Your task to perform on an android device: delete location history Image 0: 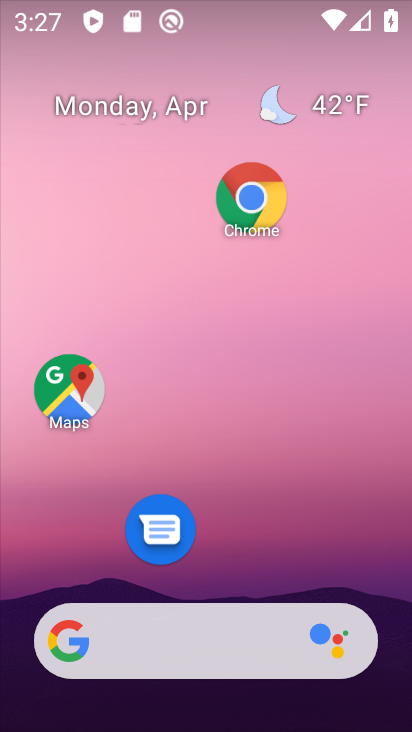
Step 0: click (75, 392)
Your task to perform on an android device: delete location history Image 1: 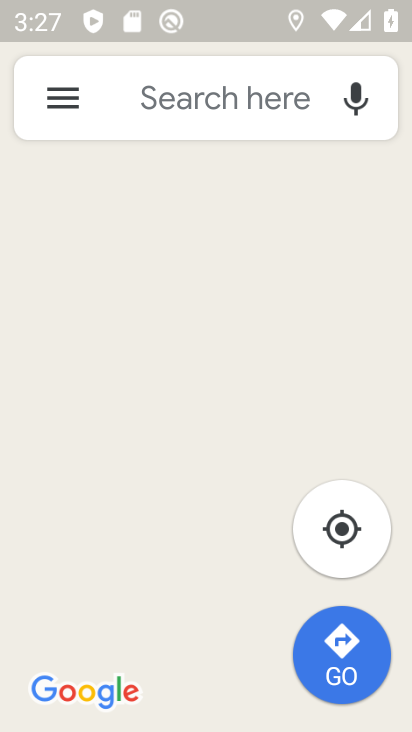
Step 1: click (57, 112)
Your task to perform on an android device: delete location history Image 2: 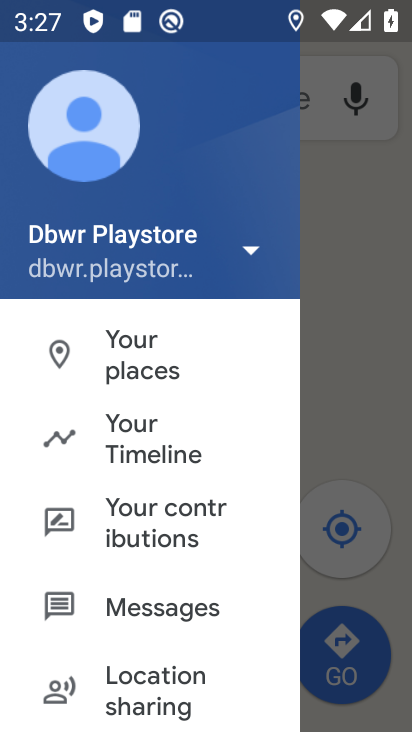
Step 2: click (160, 453)
Your task to perform on an android device: delete location history Image 3: 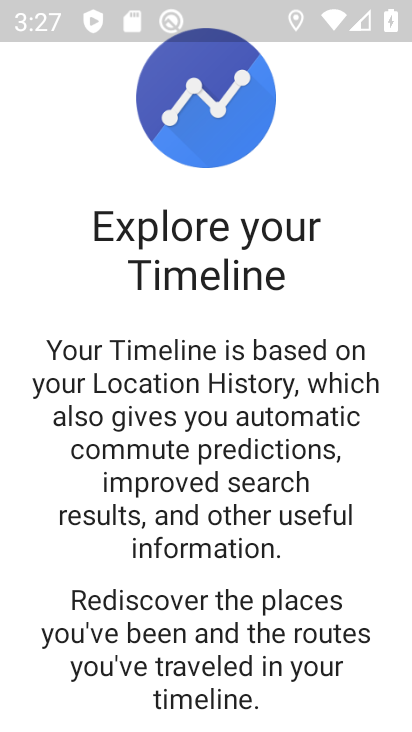
Step 3: click (328, 729)
Your task to perform on an android device: delete location history Image 4: 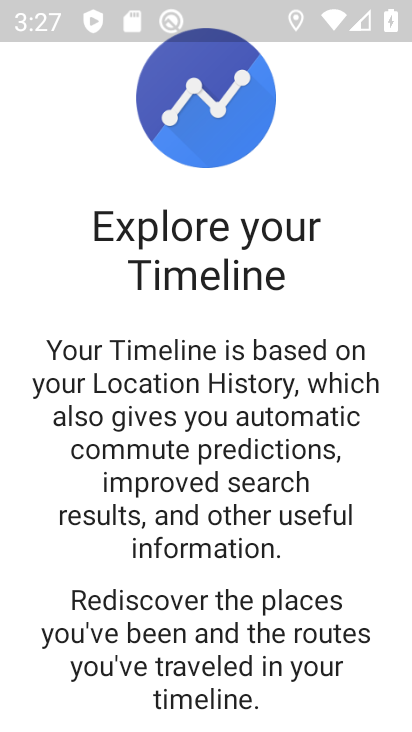
Step 4: click (332, 713)
Your task to perform on an android device: delete location history Image 5: 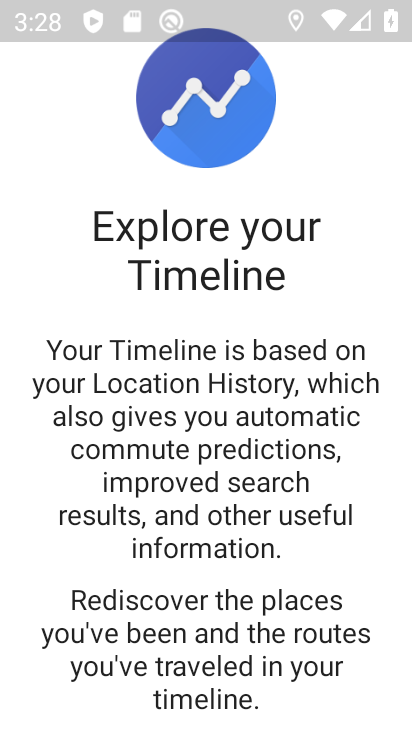
Step 5: drag from (282, 692) to (319, 708)
Your task to perform on an android device: delete location history Image 6: 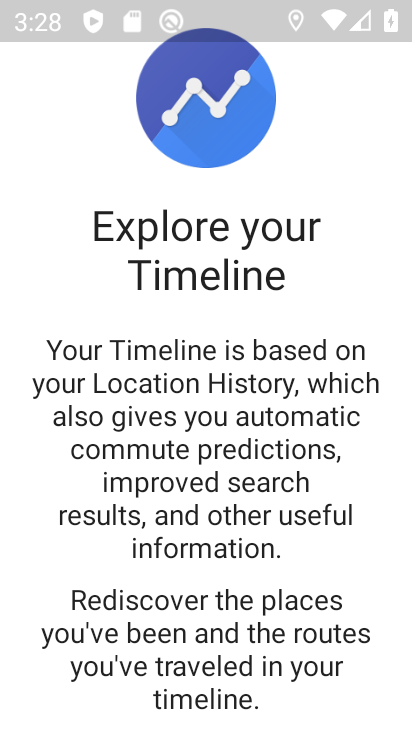
Step 6: drag from (263, 455) to (247, 222)
Your task to perform on an android device: delete location history Image 7: 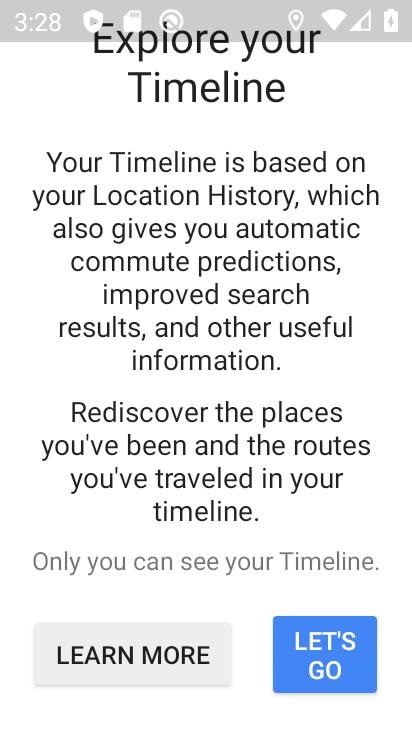
Step 7: click (330, 652)
Your task to perform on an android device: delete location history Image 8: 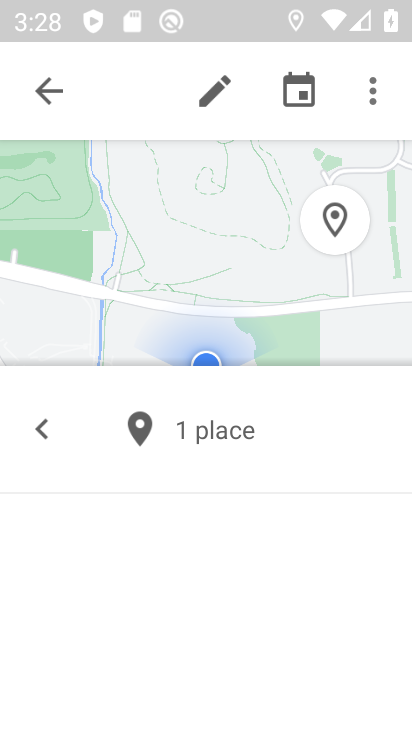
Step 8: click (367, 103)
Your task to perform on an android device: delete location history Image 9: 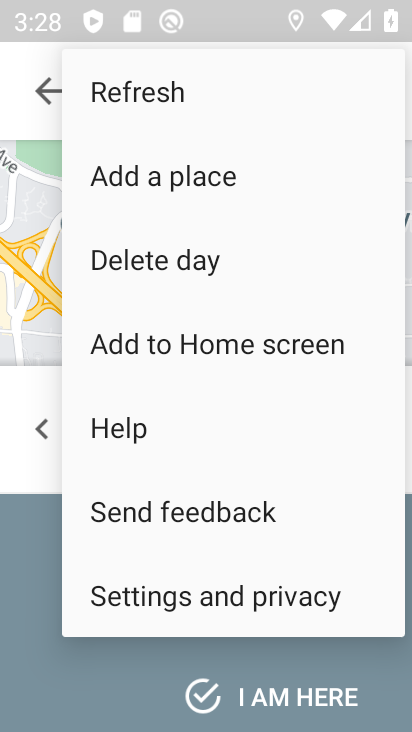
Step 9: click (242, 581)
Your task to perform on an android device: delete location history Image 10: 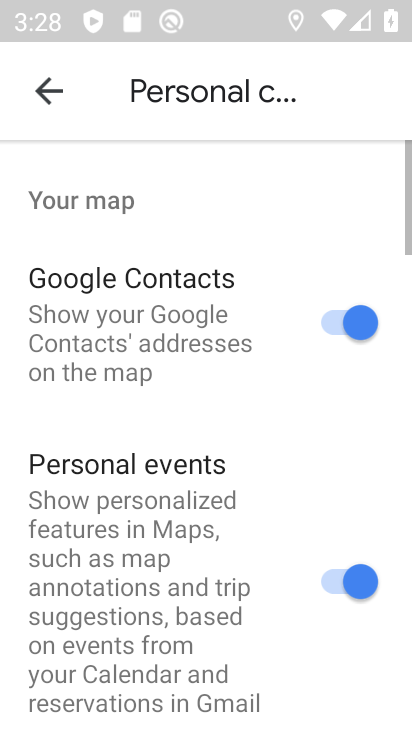
Step 10: drag from (196, 453) to (163, 153)
Your task to perform on an android device: delete location history Image 11: 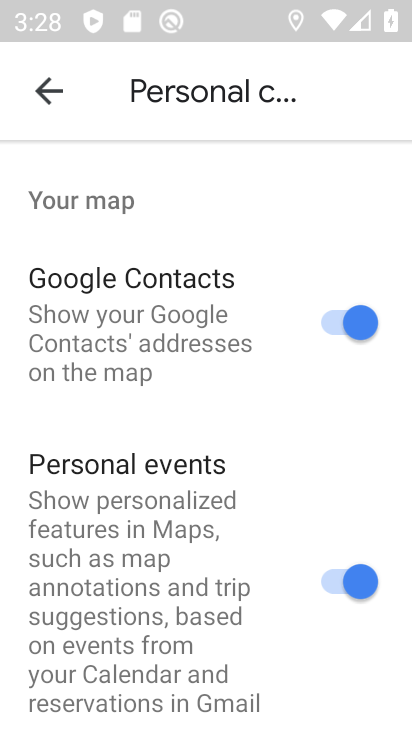
Step 11: drag from (203, 668) to (217, 156)
Your task to perform on an android device: delete location history Image 12: 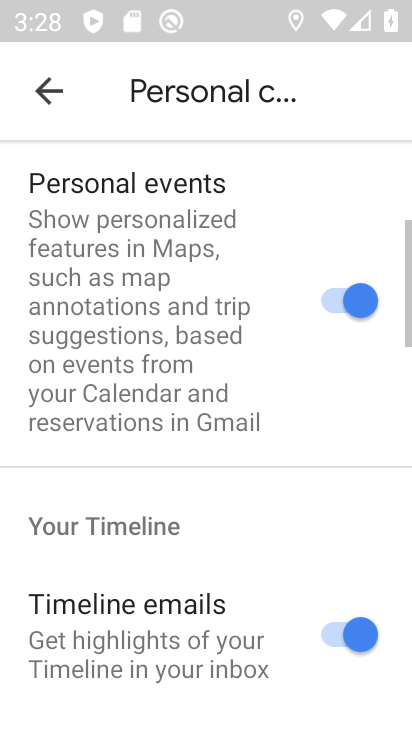
Step 12: drag from (204, 644) to (192, 197)
Your task to perform on an android device: delete location history Image 13: 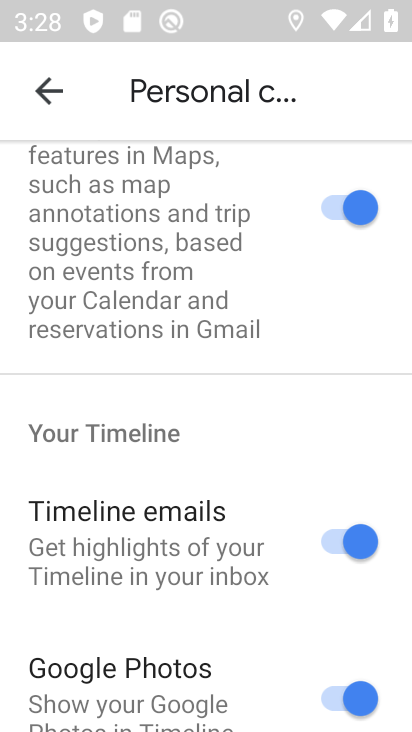
Step 13: drag from (175, 677) to (164, 235)
Your task to perform on an android device: delete location history Image 14: 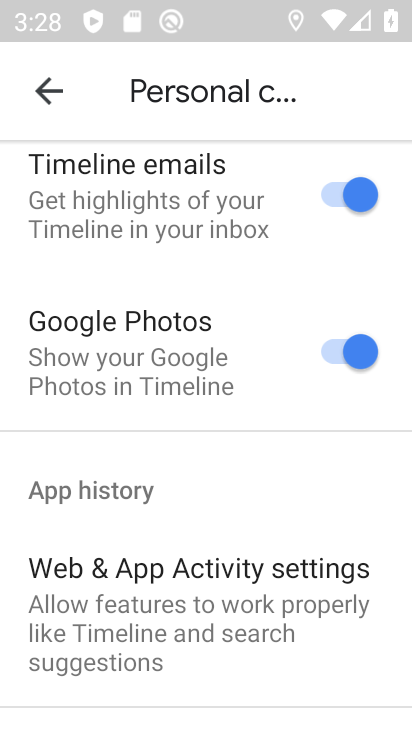
Step 14: drag from (183, 661) to (193, 234)
Your task to perform on an android device: delete location history Image 15: 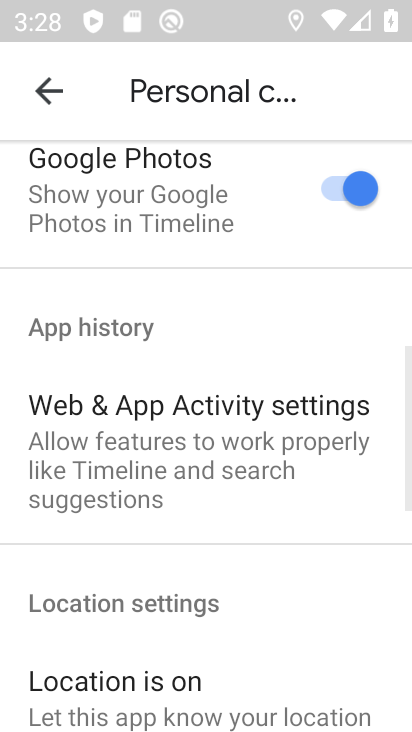
Step 15: drag from (216, 651) to (221, 282)
Your task to perform on an android device: delete location history Image 16: 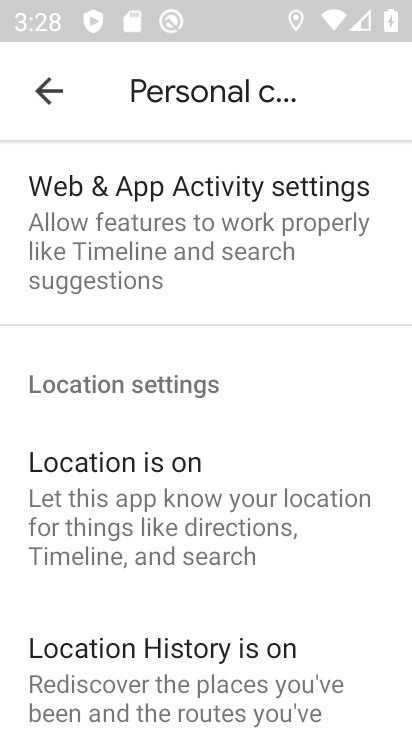
Step 16: drag from (219, 662) to (190, 246)
Your task to perform on an android device: delete location history Image 17: 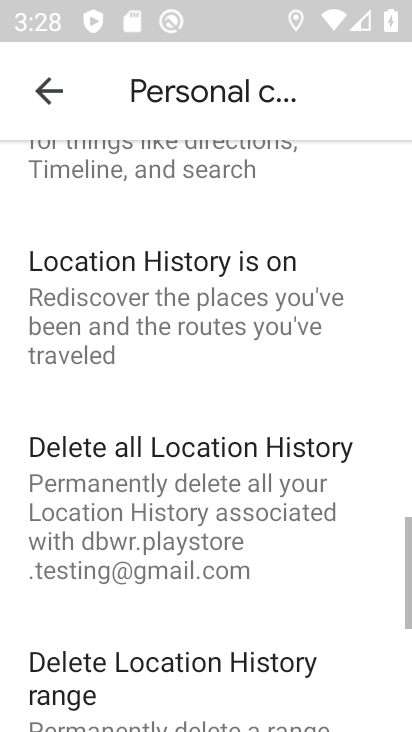
Step 17: drag from (190, 621) to (205, 348)
Your task to perform on an android device: delete location history Image 18: 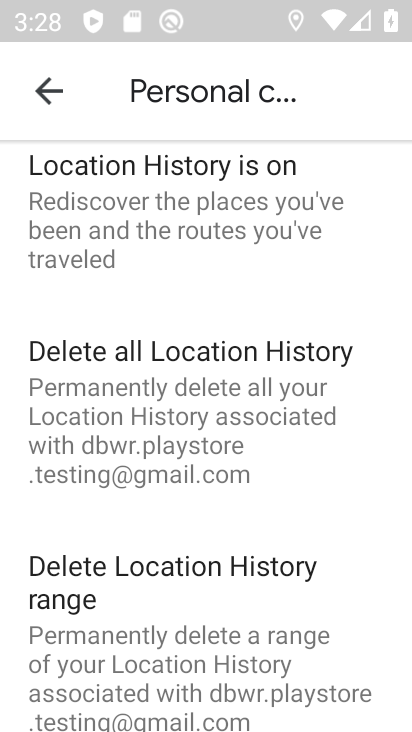
Step 18: drag from (227, 556) to (224, 396)
Your task to perform on an android device: delete location history Image 19: 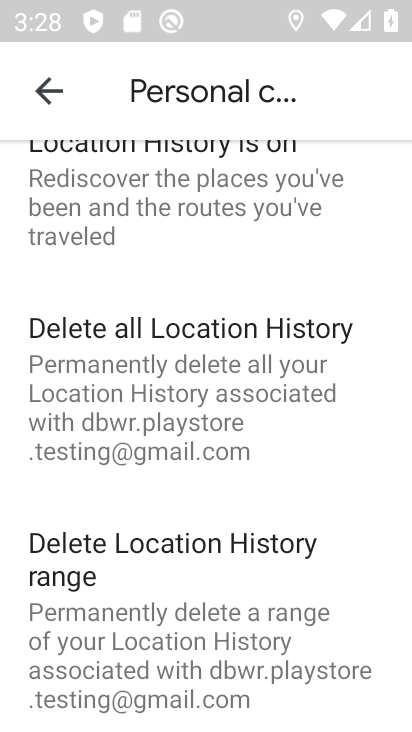
Step 19: click (210, 371)
Your task to perform on an android device: delete location history Image 20: 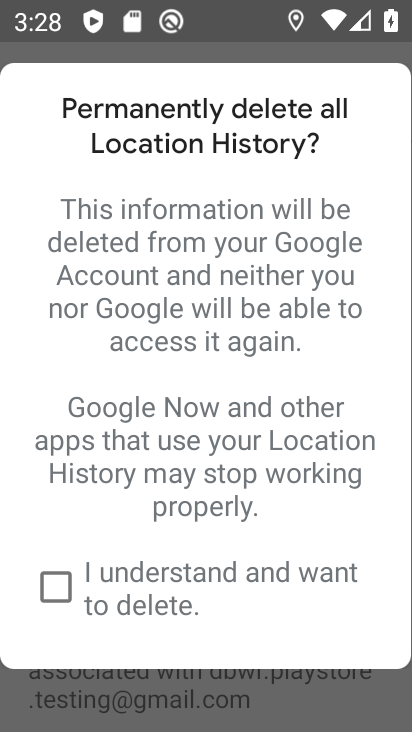
Step 20: click (56, 577)
Your task to perform on an android device: delete location history Image 21: 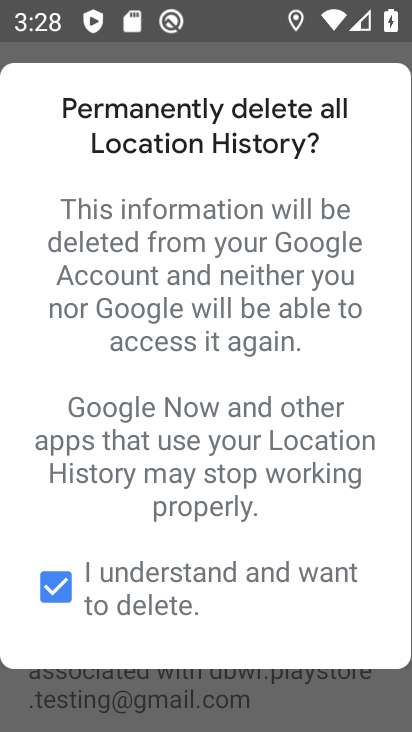
Step 21: drag from (295, 517) to (310, 243)
Your task to perform on an android device: delete location history Image 22: 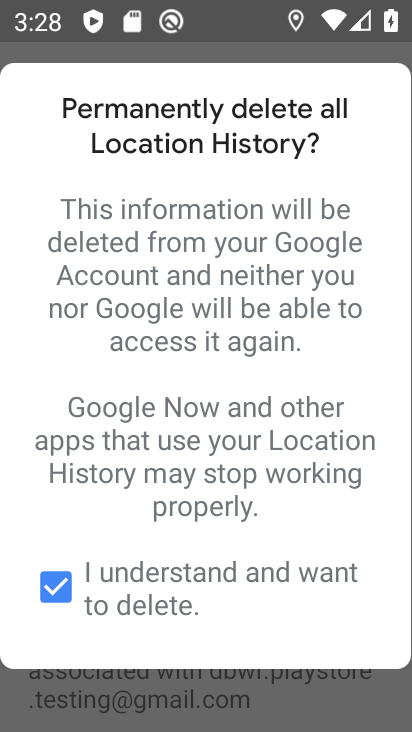
Step 22: click (366, 646)
Your task to perform on an android device: delete location history Image 23: 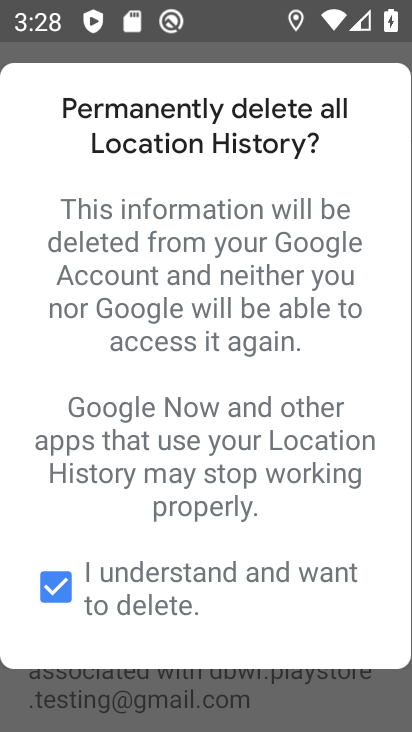
Step 23: click (340, 649)
Your task to perform on an android device: delete location history Image 24: 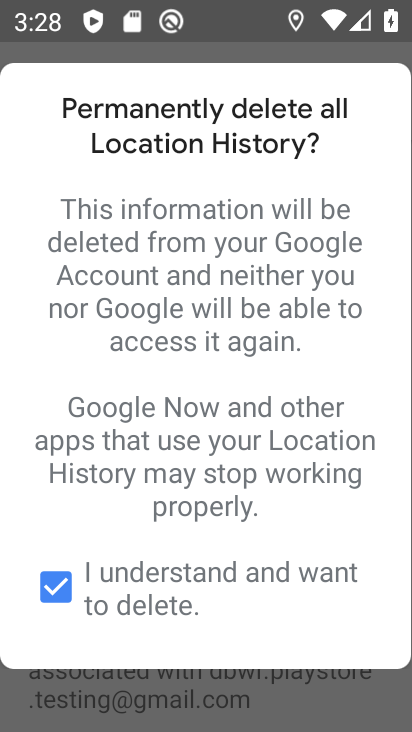
Step 24: click (346, 661)
Your task to perform on an android device: delete location history Image 25: 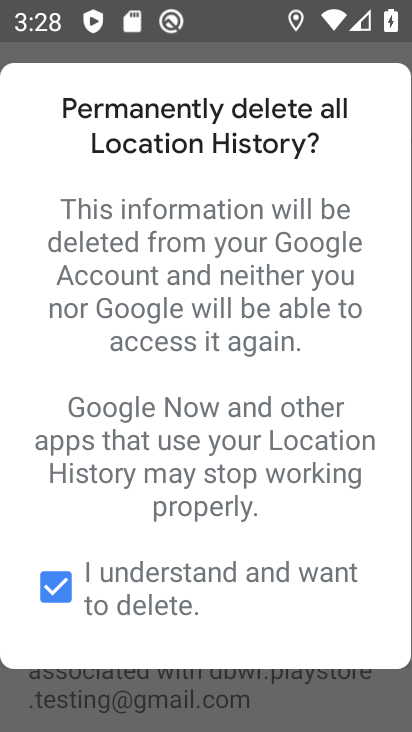
Step 25: click (273, 635)
Your task to perform on an android device: delete location history Image 26: 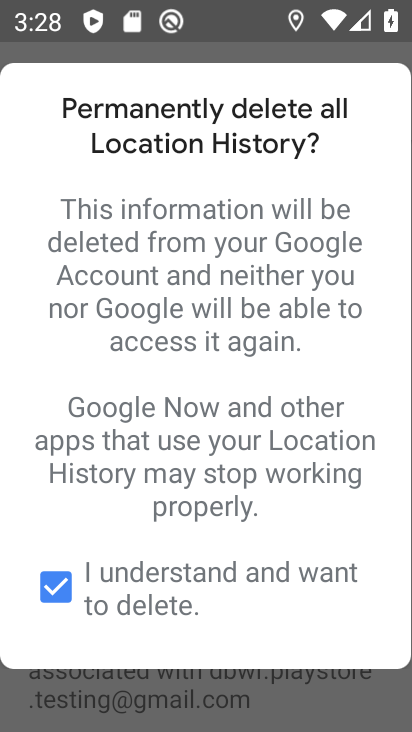
Step 26: click (254, 637)
Your task to perform on an android device: delete location history Image 27: 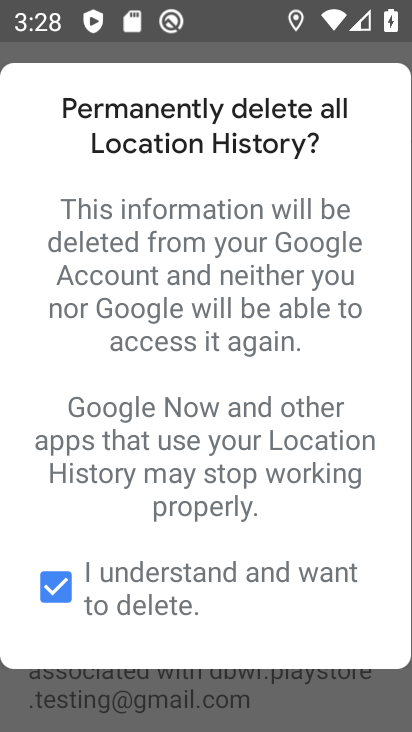
Step 27: click (263, 642)
Your task to perform on an android device: delete location history Image 28: 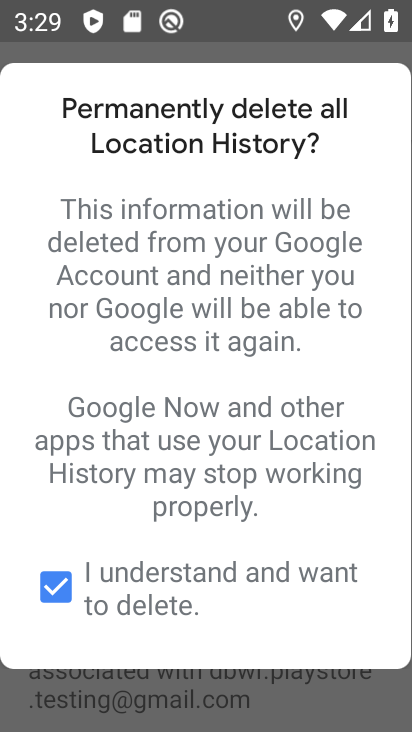
Step 28: click (305, 647)
Your task to perform on an android device: delete location history Image 29: 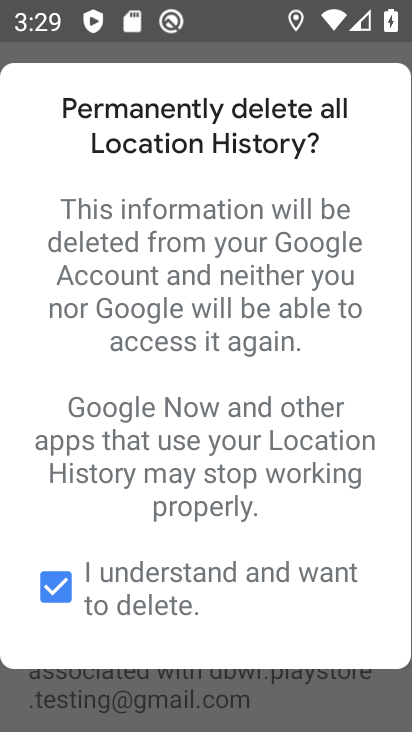
Step 29: click (323, 647)
Your task to perform on an android device: delete location history Image 30: 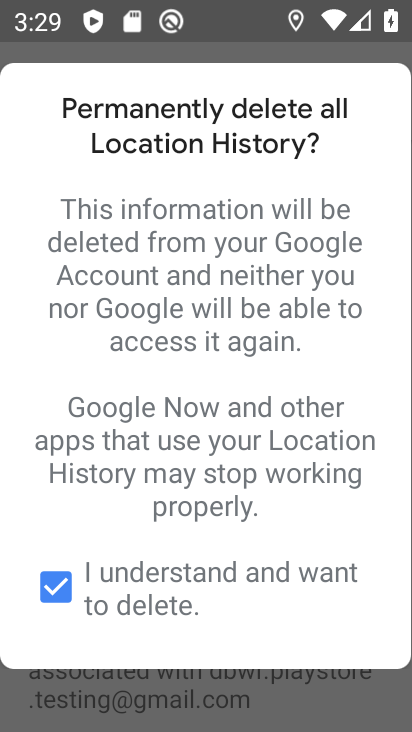
Step 30: drag from (308, 673) to (261, 336)
Your task to perform on an android device: delete location history Image 31: 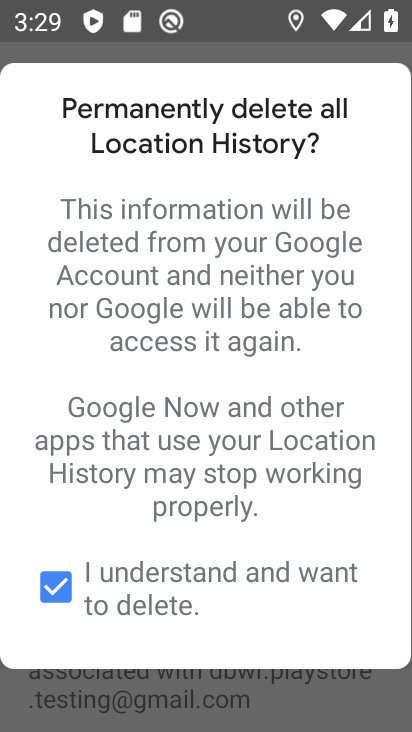
Step 31: click (360, 642)
Your task to perform on an android device: delete location history Image 32: 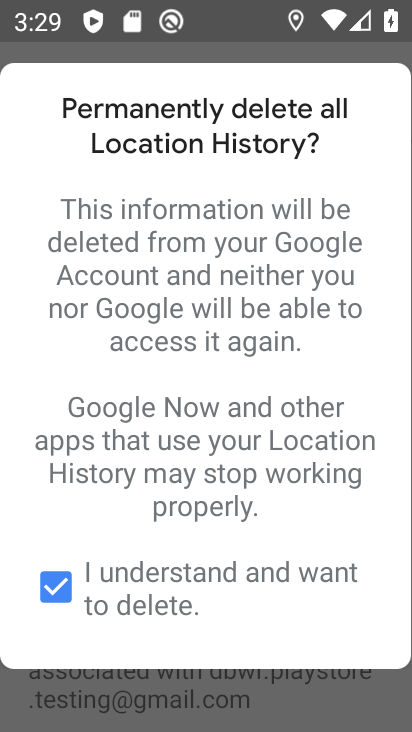
Step 32: click (372, 642)
Your task to perform on an android device: delete location history Image 33: 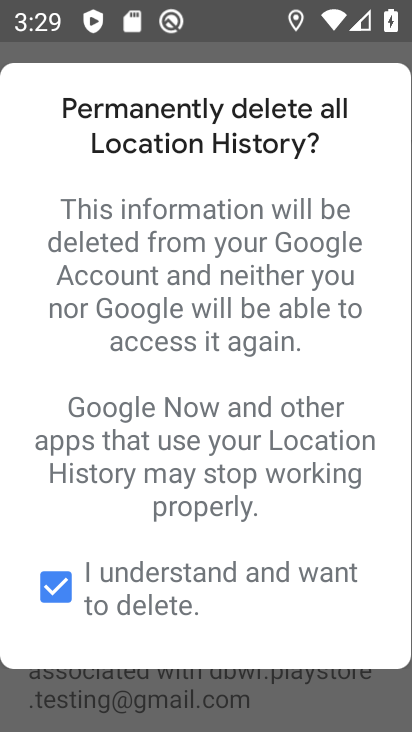
Step 33: click (376, 653)
Your task to perform on an android device: delete location history Image 34: 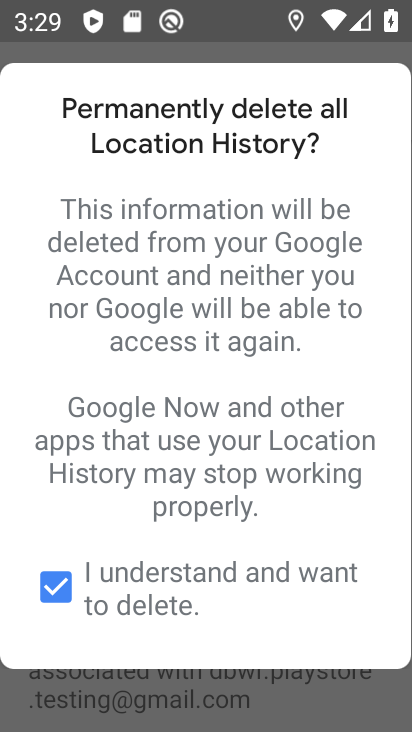
Step 34: click (396, 651)
Your task to perform on an android device: delete location history Image 35: 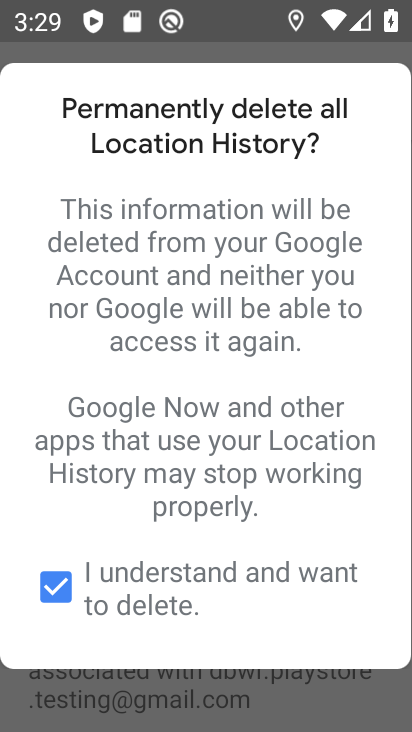
Step 35: drag from (349, 592) to (316, 294)
Your task to perform on an android device: delete location history Image 36: 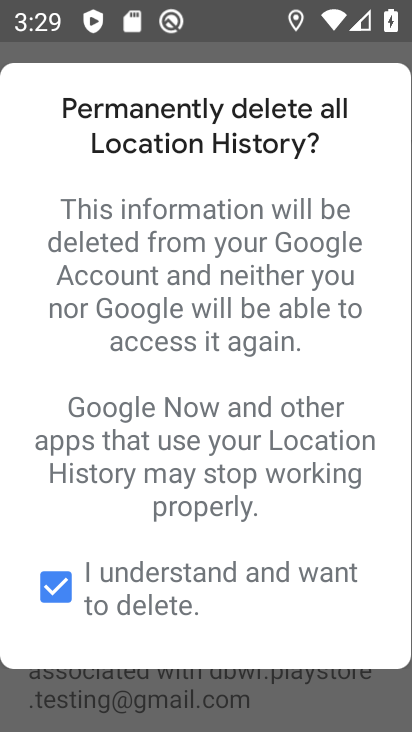
Step 36: drag from (239, 528) to (258, 256)
Your task to perform on an android device: delete location history Image 37: 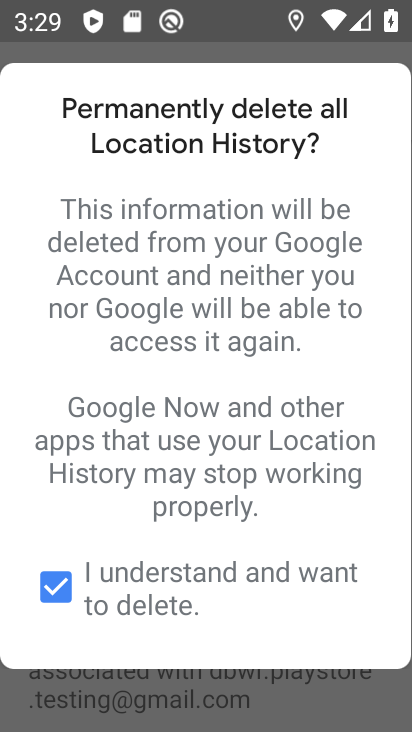
Step 37: click (340, 639)
Your task to perform on an android device: delete location history Image 38: 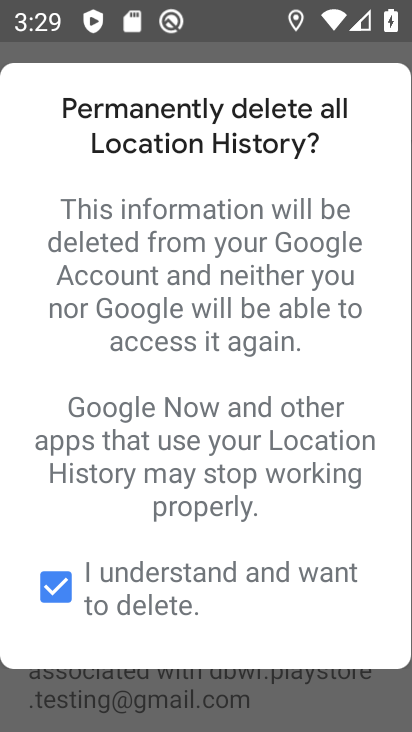
Step 38: drag from (273, 644) to (389, 646)
Your task to perform on an android device: delete location history Image 39: 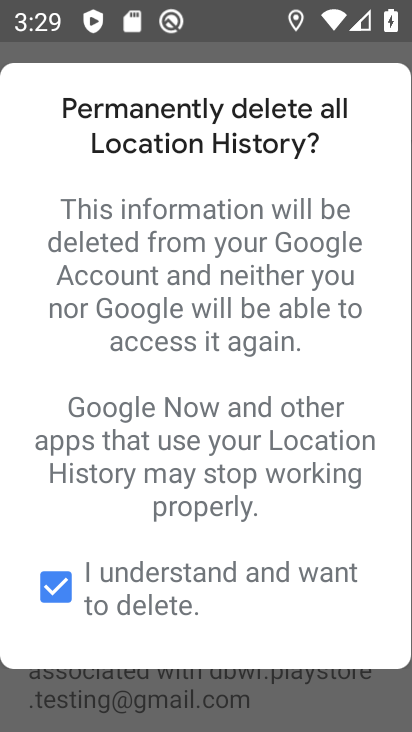
Step 39: drag from (306, 616) to (332, 638)
Your task to perform on an android device: delete location history Image 40: 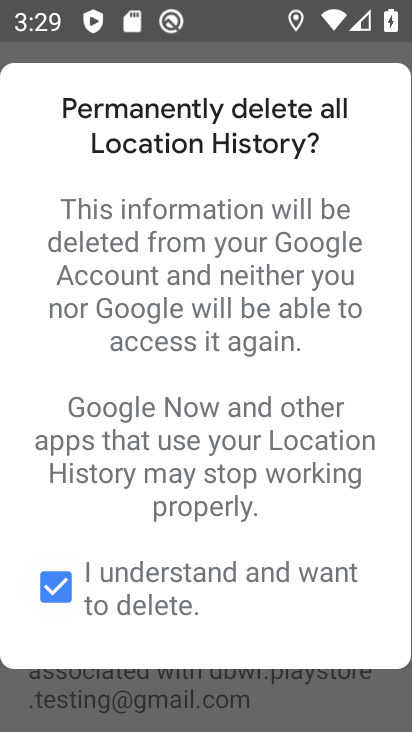
Step 40: click (345, 644)
Your task to perform on an android device: delete location history Image 41: 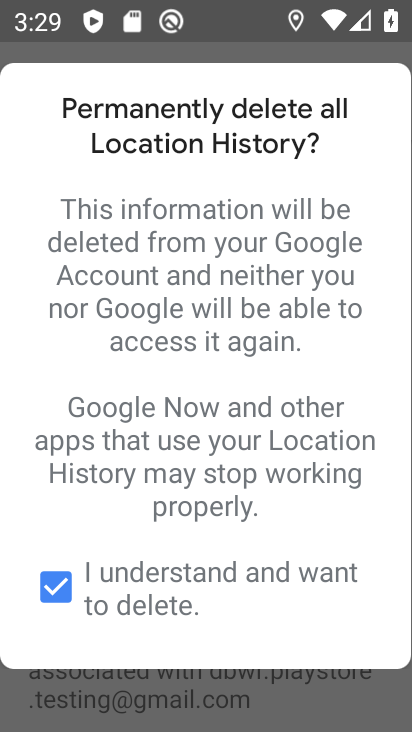
Step 41: drag from (298, 581) to (278, 345)
Your task to perform on an android device: delete location history Image 42: 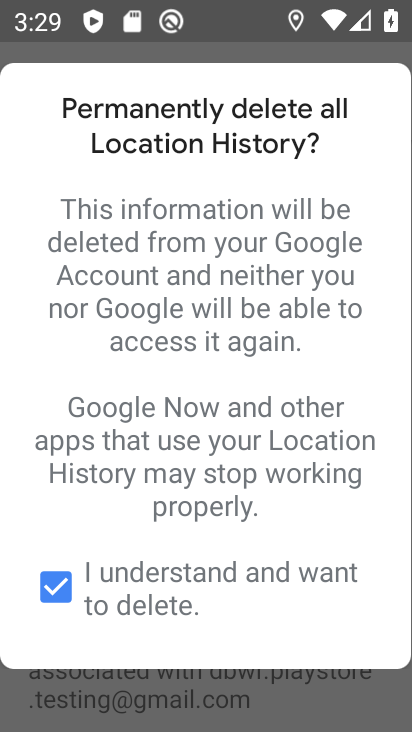
Step 42: click (347, 647)
Your task to perform on an android device: delete location history Image 43: 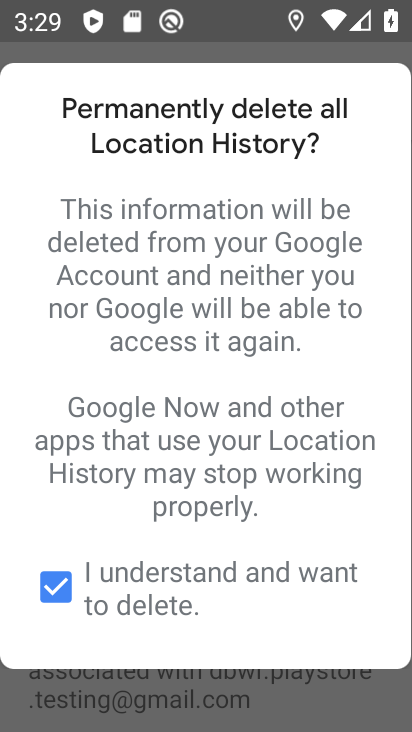
Step 43: task complete